Your task to perform on an android device: turn on the 12-hour format for clock Image 0: 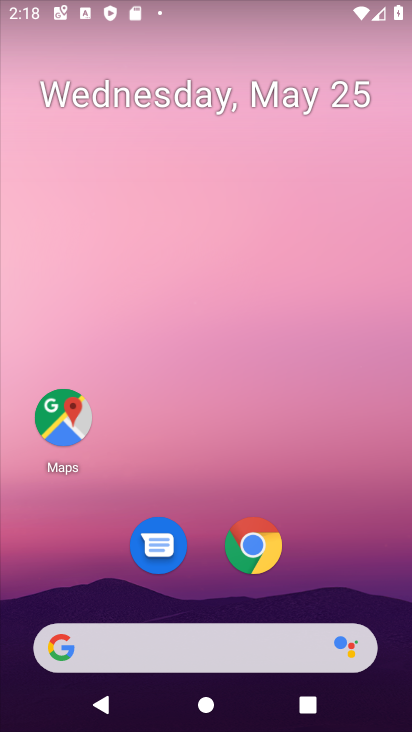
Step 0: drag from (348, 581) to (335, 377)
Your task to perform on an android device: turn on the 12-hour format for clock Image 1: 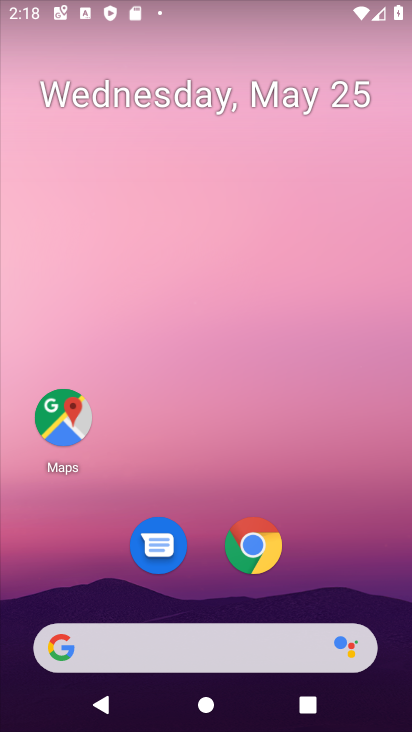
Step 1: drag from (335, 556) to (334, 473)
Your task to perform on an android device: turn on the 12-hour format for clock Image 2: 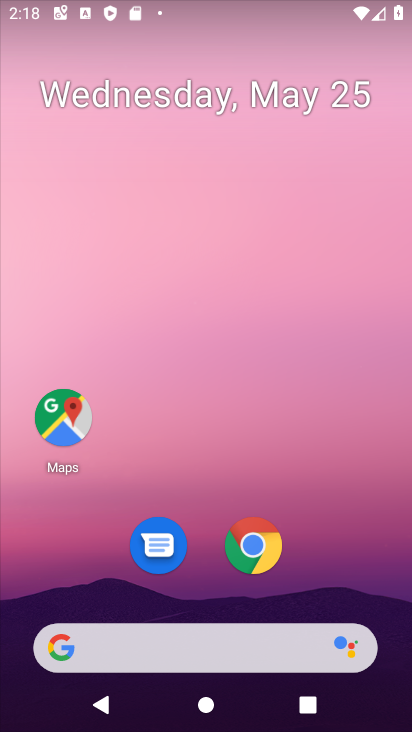
Step 2: drag from (334, 583) to (310, 338)
Your task to perform on an android device: turn on the 12-hour format for clock Image 3: 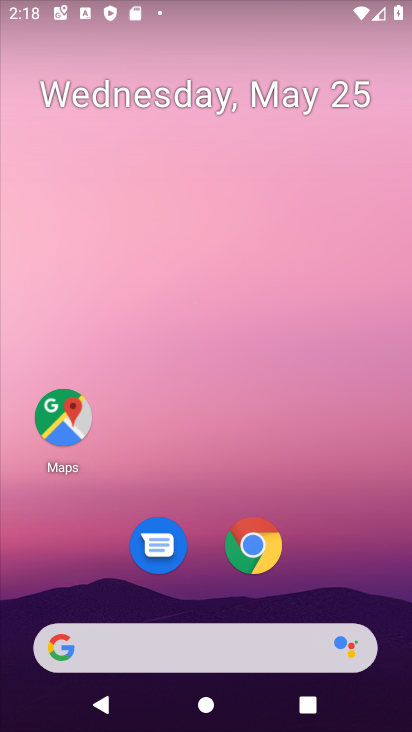
Step 3: drag from (362, 569) to (330, 190)
Your task to perform on an android device: turn on the 12-hour format for clock Image 4: 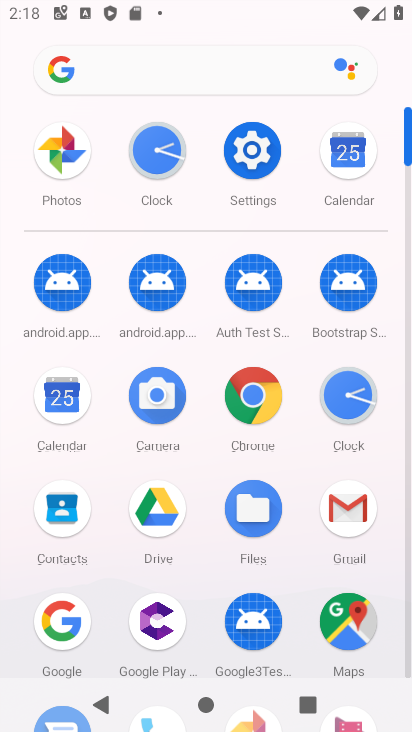
Step 4: click (154, 147)
Your task to perform on an android device: turn on the 12-hour format for clock Image 5: 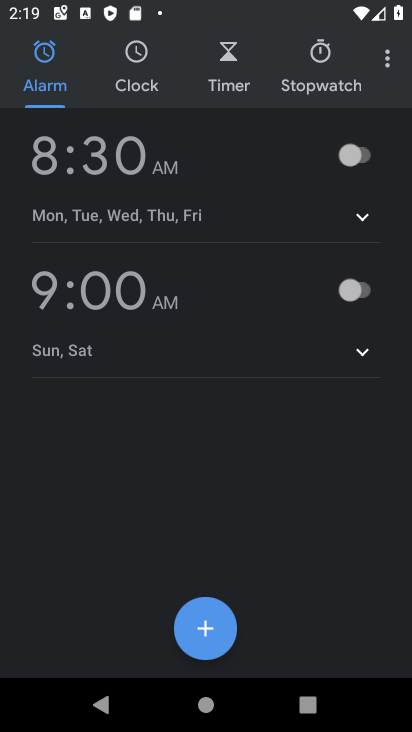
Step 5: click (396, 64)
Your task to perform on an android device: turn on the 12-hour format for clock Image 6: 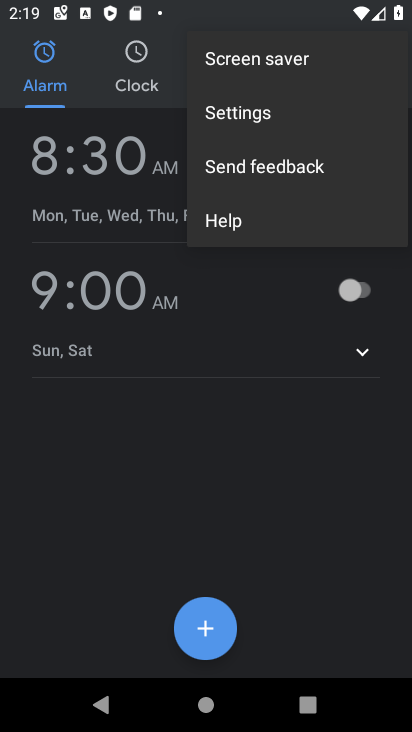
Step 6: click (314, 115)
Your task to perform on an android device: turn on the 12-hour format for clock Image 7: 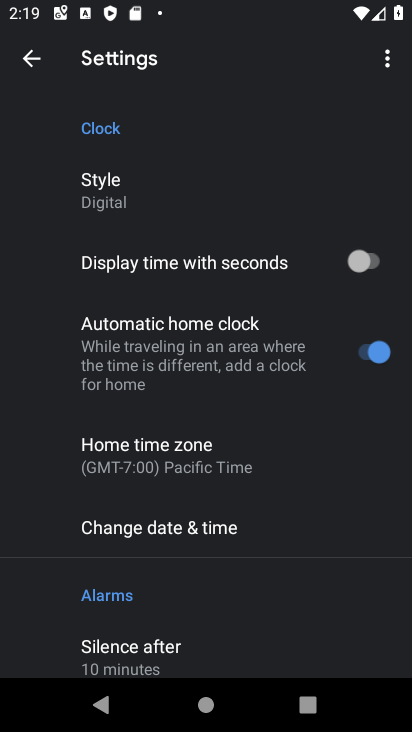
Step 7: click (261, 514)
Your task to perform on an android device: turn on the 12-hour format for clock Image 8: 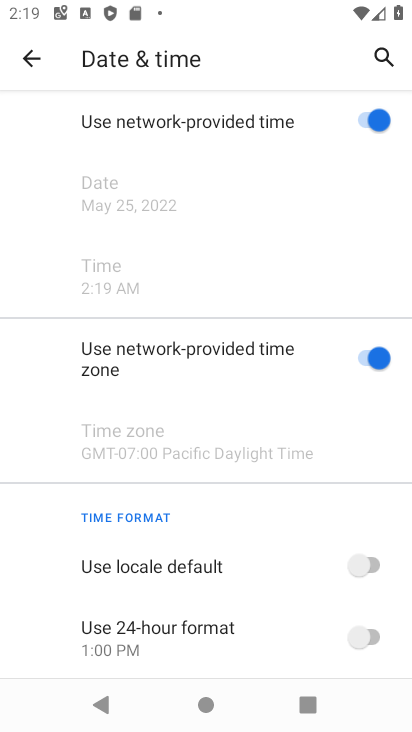
Step 8: task complete